Your task to perform on an android device: turn off improve location accuracy Image 0: 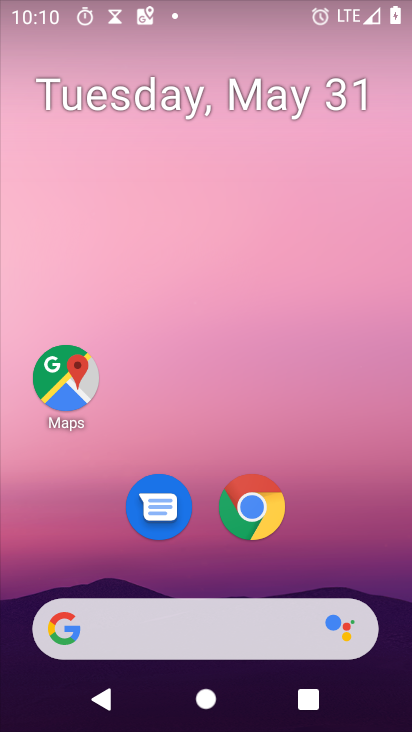
Step 0: drag from (0, 644) to (228, 129)
Your task to perform on an android device: turn off improve location accuracy Image 1: 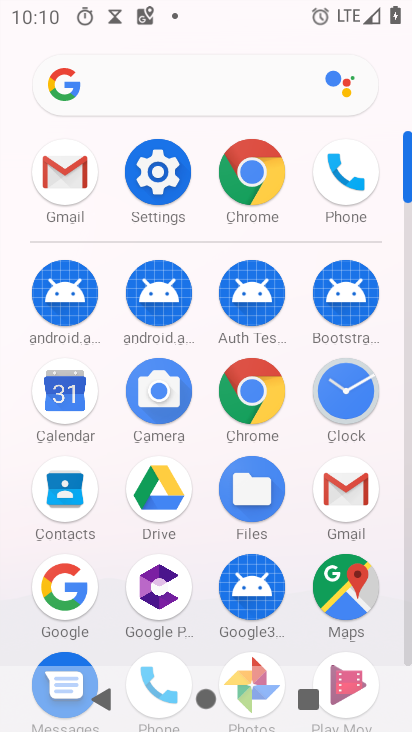
Step 1: click (144, 175)
Your task to perform on an android device: turn off improve location accuracy Image 2: 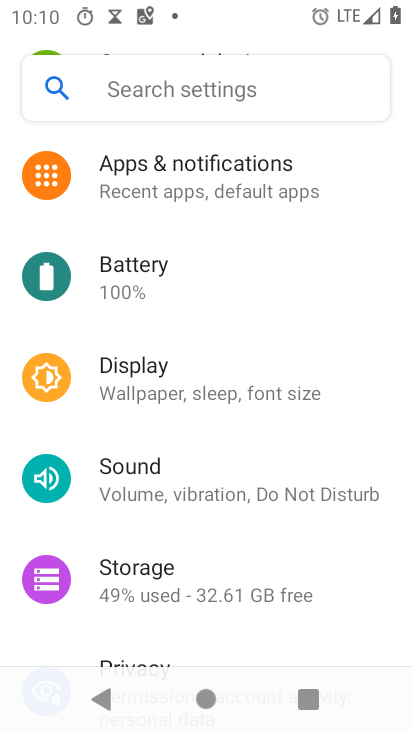
Step 2: drag from (14, 535) to (196, 111)
Your task to perform on an android device: turn off improve location accuracy Image 3: 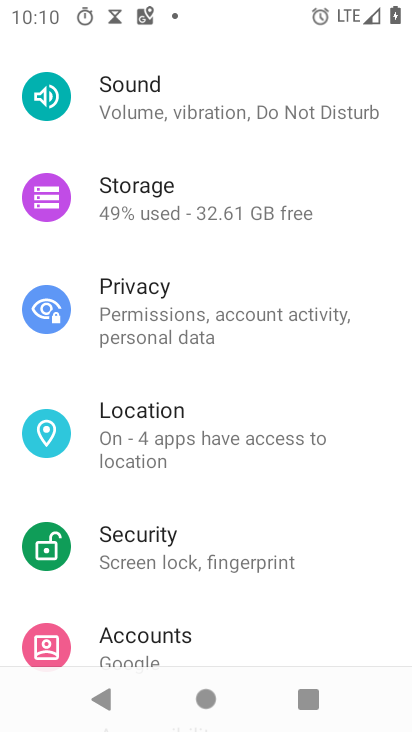
Step 3: click (139, 419)
Your task to perform on an android device: turn off improve location accuracy Image 4: 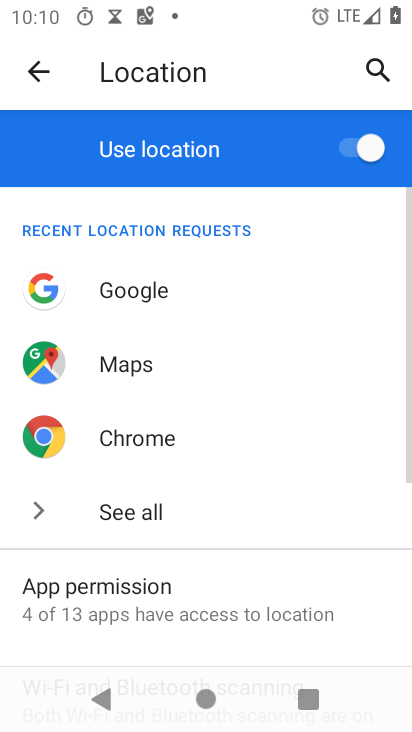
Step 4: drag from (15, 514) to (175, 125)
Your task to perform on an android device: turn off improve location accuracy Image 5: 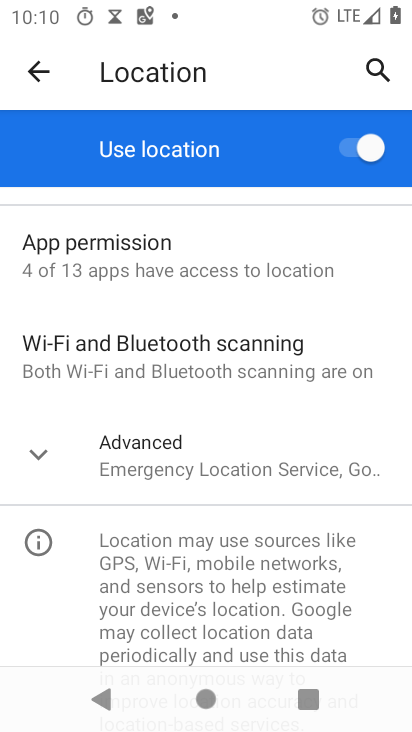
Step 5: click (187, 452)
Your task to perform on an android device: turn off improve location accuracy Image 6: 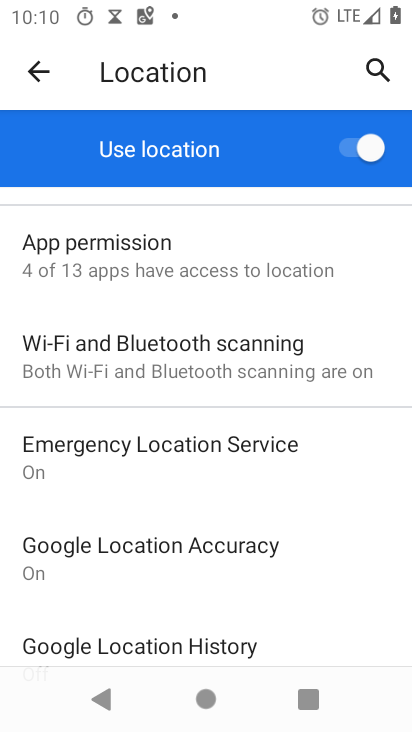
Step 6: click (227, 557)
Your task to perform on an android device: turn off improve location accuracy Image 7: 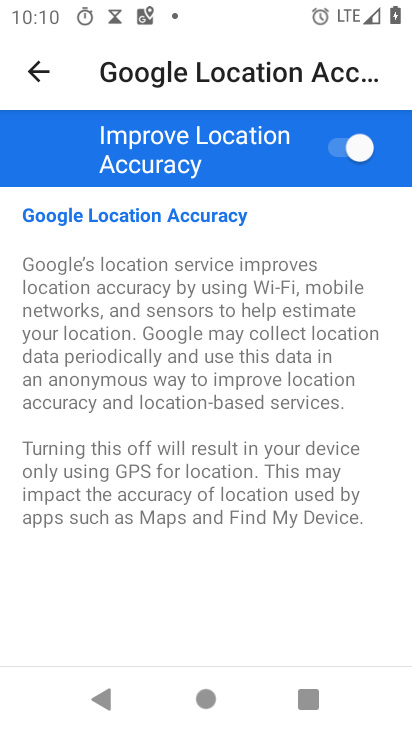
Step 7: click (368, 156)
Your task to perform on an android device: turn off improve location accuracy Image 8: 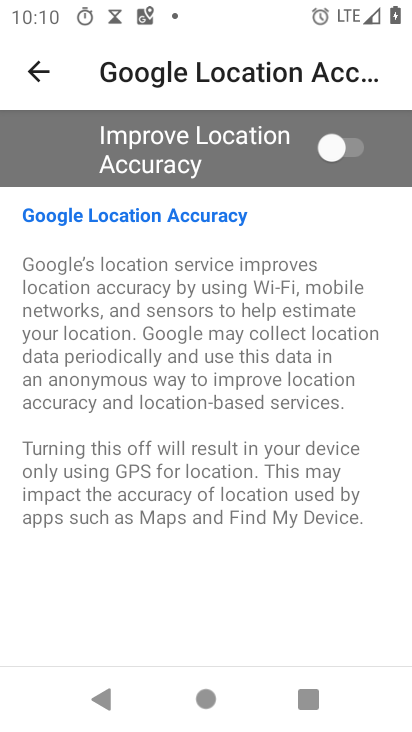
Step 8: task complete